Your task to perform on an android device: turn off improve location accuracy Image 0: 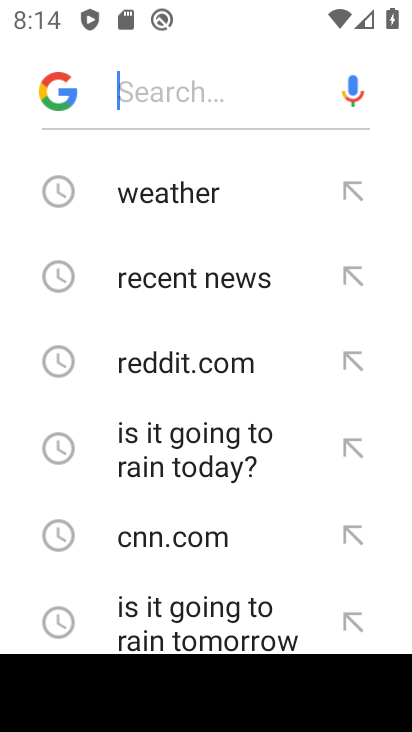
Step 0: press home button
Your task to perform on an android device: turn off improve location accuracy Image 1: 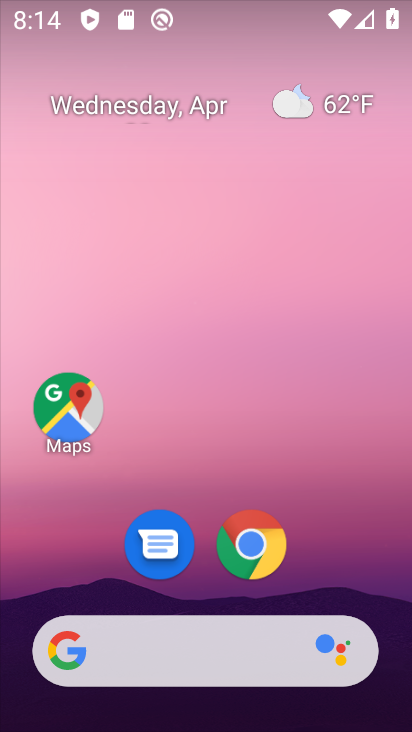
Step 1: drag from (324, 571) to (265, 74)
Your task to perform on an android device: turn off improve location accuracy Image 2: 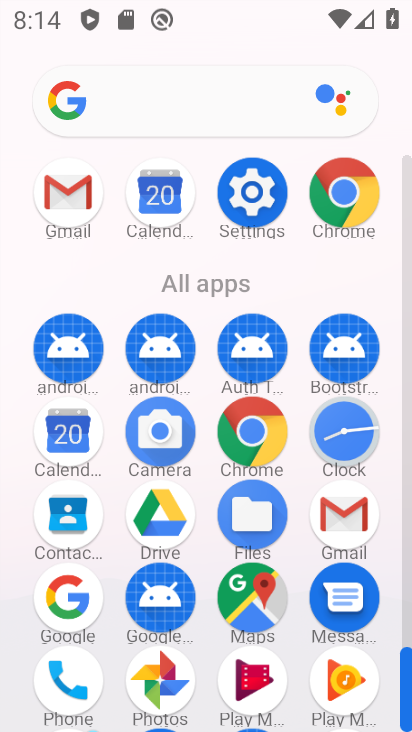
Step 2: click (247, 178)
Your task to perform on an android device: turn off improve location accuracy Image 3: 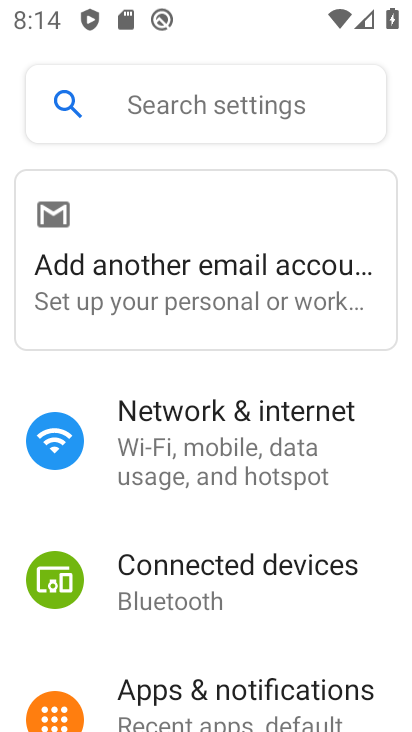
Step 3: drag from (221, 681) to (238, 113)
Your task to perform on an android device: turn off improve location accuracy Image 4: 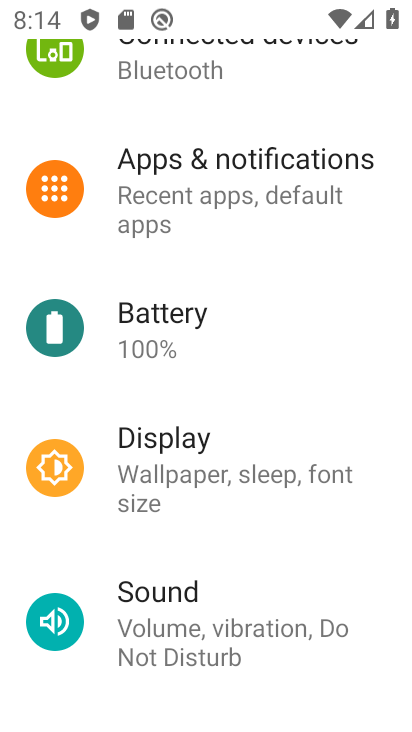
Step 4: drag from (230, 617) to (257, 274)
Your task to perform on an android device: turn off improve location accuracy Image 5: 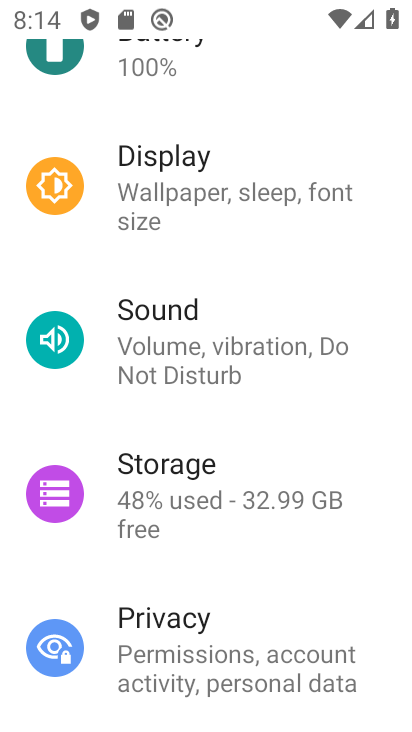
Step 5: drag from (217, 668) to (226, 200)
Your task to perform on an android device: turn off improve location accuracy Image 6: 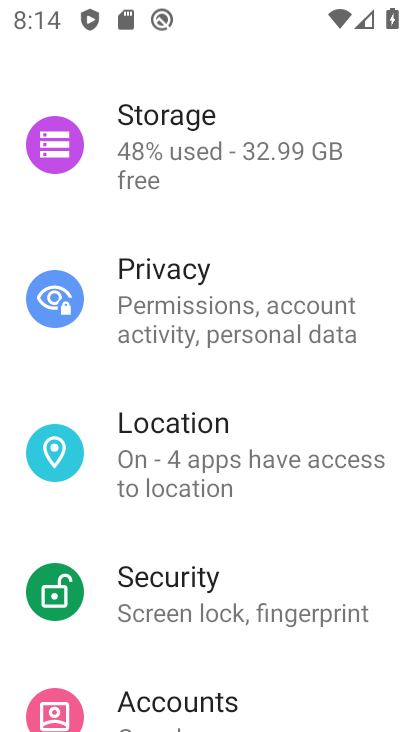
Step 6: click (185, 447)
Your task to perform on an android device: turn off improve location accuracy Image 7: 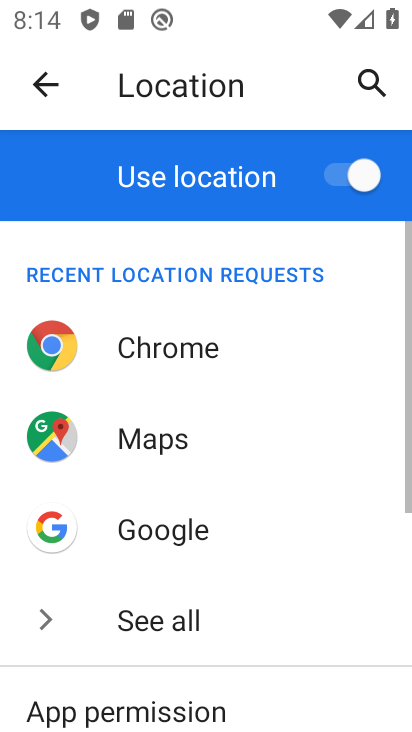
Step 7: drag from (199, 558) to (191, 141)
Your task to perform on an android device: turn off improve location accuracy Image 8: 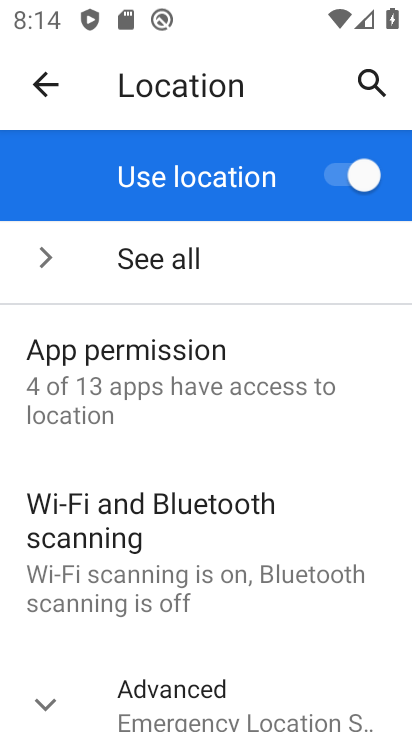
Step 8: drag from (223, 687) to (205, 332)
Your task to perform on an android device: turn off improve location accuracy Image 9: 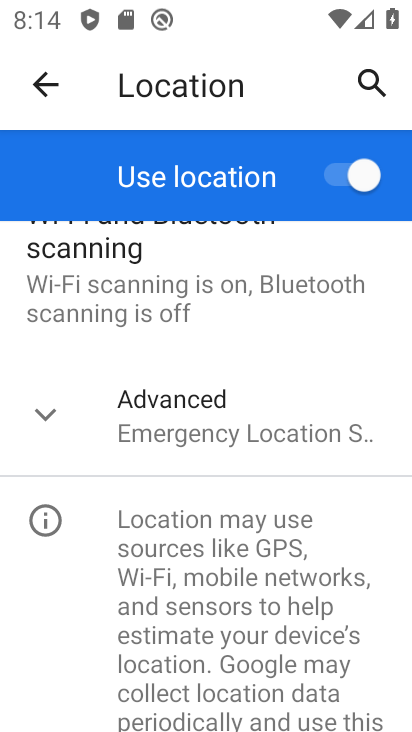
Step 9: click (127, 414)
Your task to perform on an android device: turn off improve location accuracy Image 10: 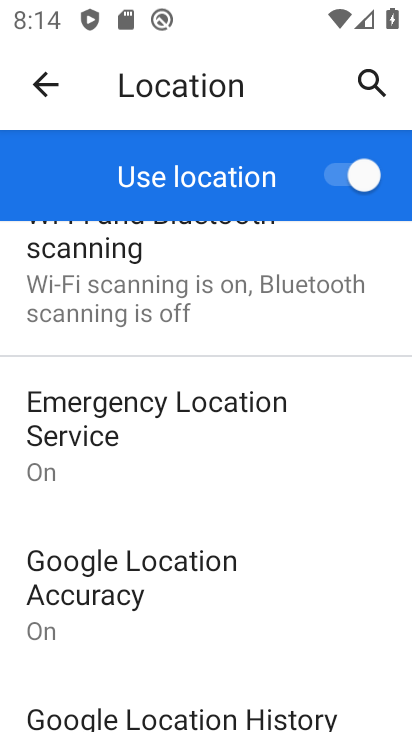
Step 10: click (111, 582)
Your task to perform on an android device: turn off improve location accuracy Image 11: 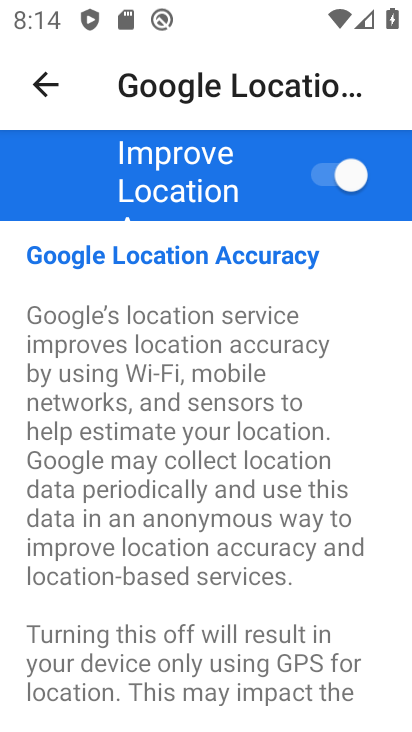
Step 11: click (339, 174)
Your task to perform on an android device: turn off improve location accuracy Image 12: 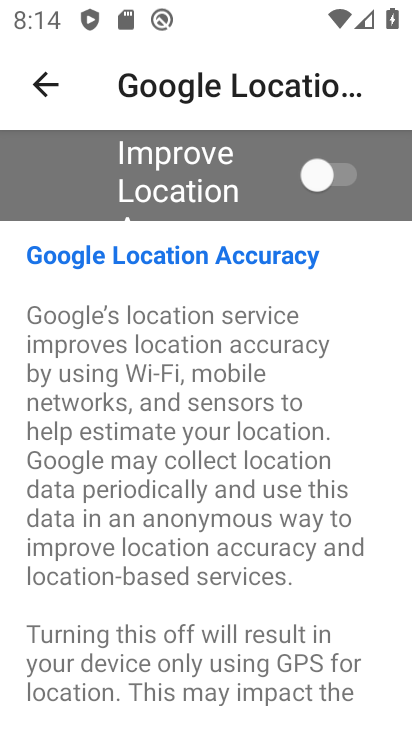
Step 12: task complete